Your task to perform on an android device: install app "TextNow: Call + Text Unlimited" Image 0: 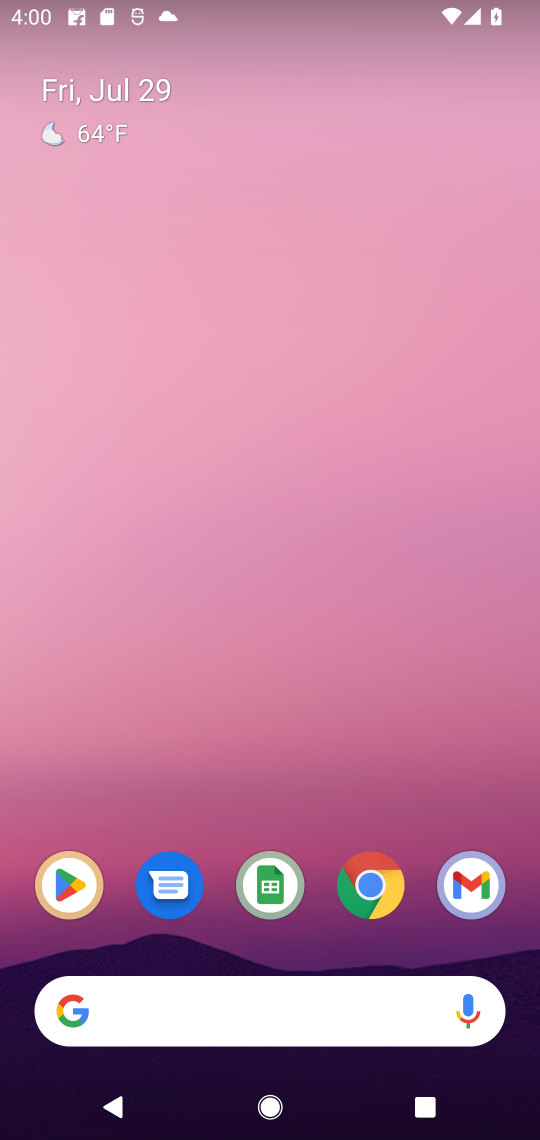
Step 0: click (68, 899)
Your task to perform on an android device: install app "TextNow: Call + Text Unlimited" Image 1: 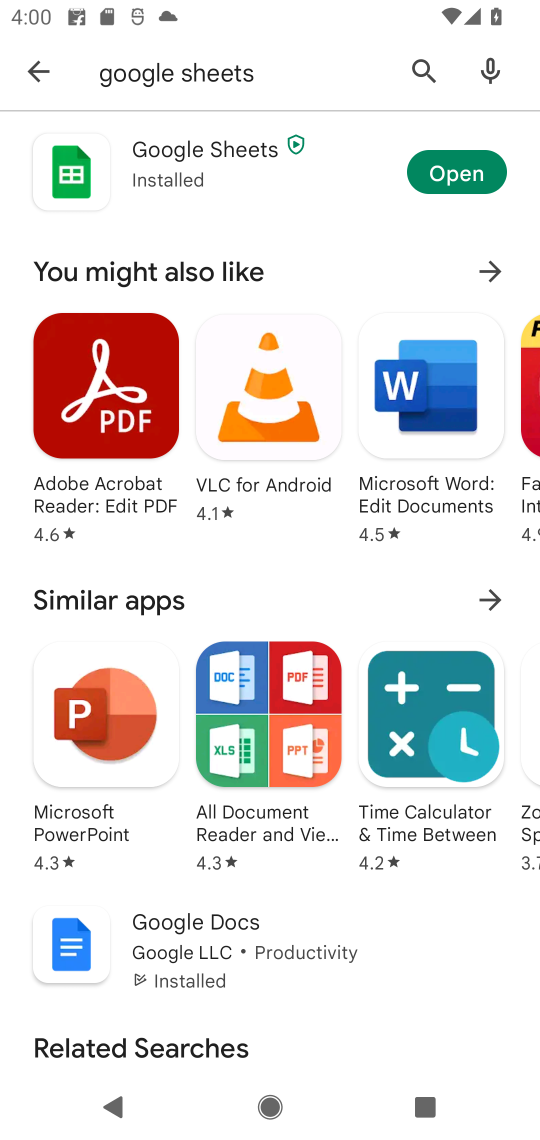
Step 1: click (418, 63)
Your task to perform on an android device: install app "TextNow: Call + Text Unlimited" Image 2: 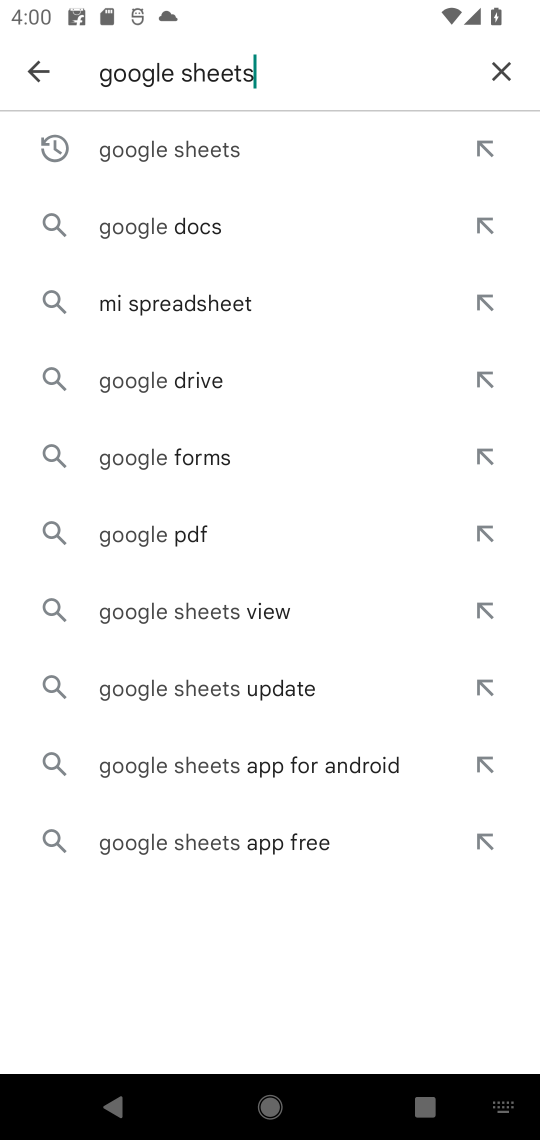
Step 2: click (507, 72)
Your task to perform on an android device: install app "TextNow: Call + Text Unlimited" Image 3: 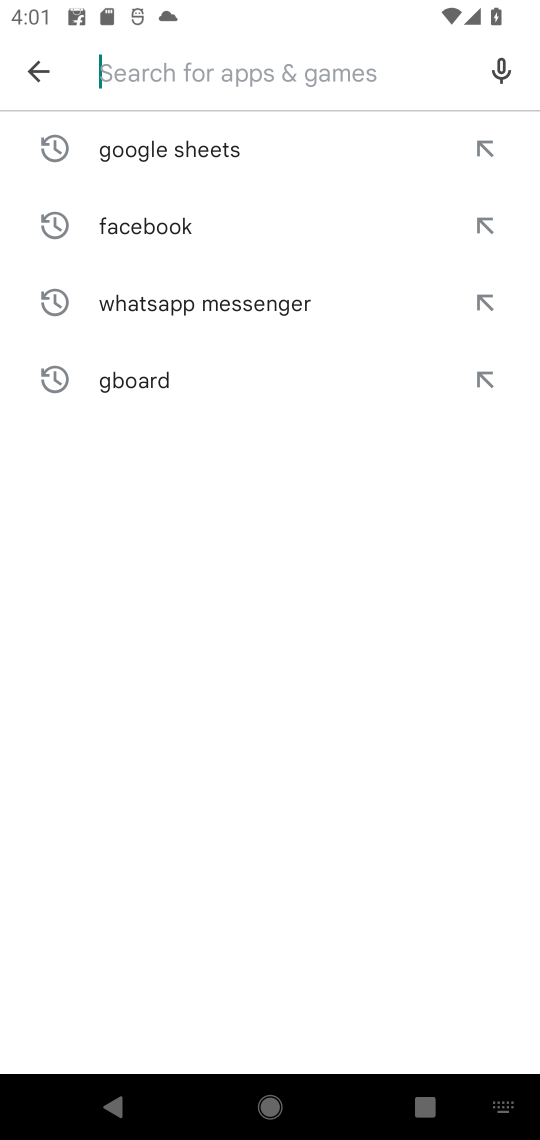
Step 3: type "TextNow: Call + Text Unlimited"
Your task to perform on an android device: install app "TextNow: Call + Text Unlimited" Image 4: 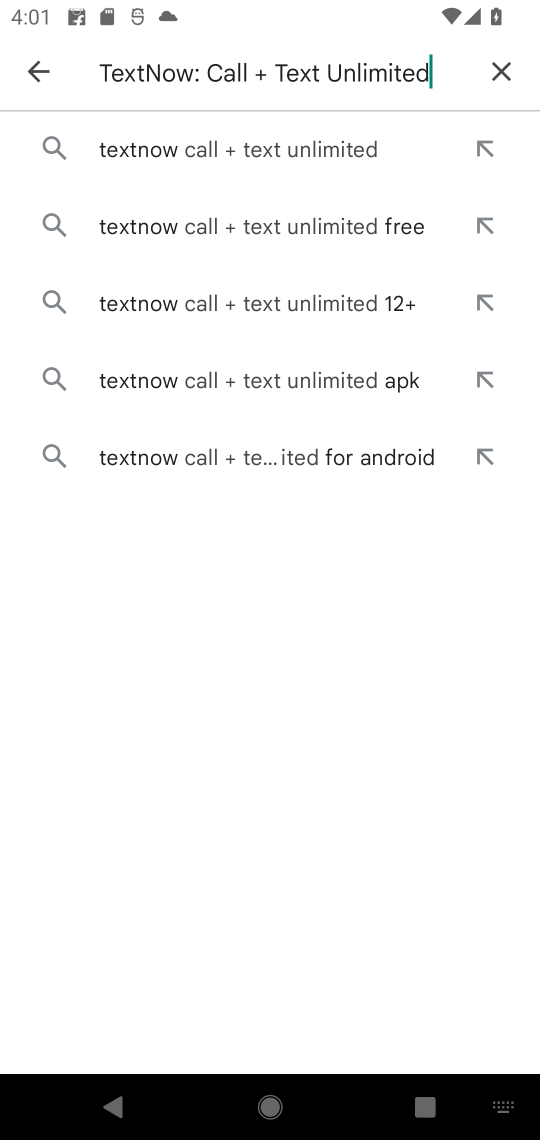
Step 4: click (269, 151)
Your task to perform on an android device: install app "TextNow: Call + Text Unlimited" Image 5: 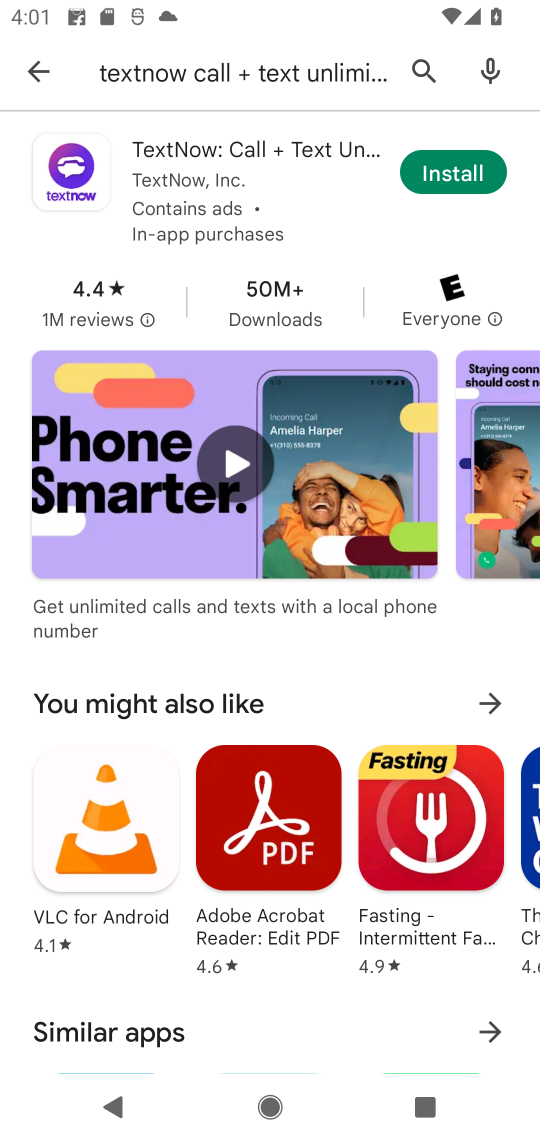
Step 5: click (433, 168)
Your task to perform on an android device: install app "TextNow: Call + Text Unlimited" Image 6: 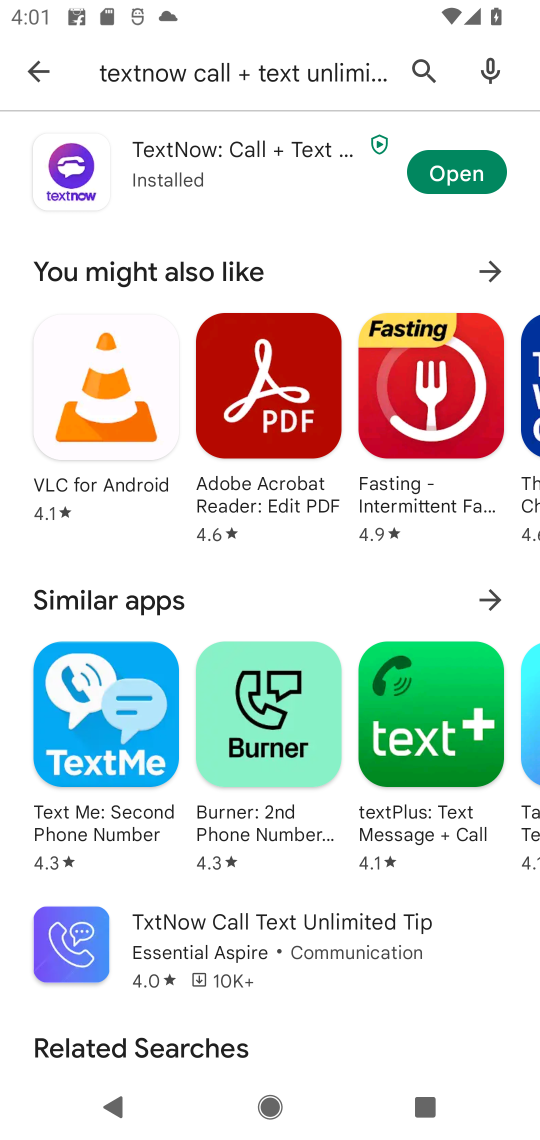
Step 6: task complete